Your task to perform on an android device: Open Google Image 0: 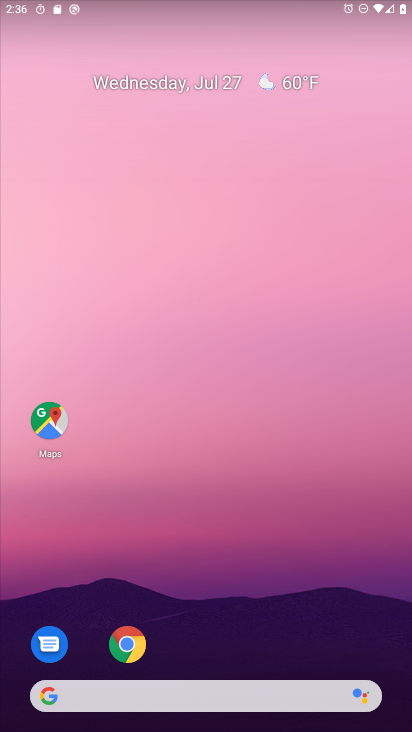
Step 0: drag from (216, 555) to (265, 51)
Your task to perform on an android device: Open Google Image 1: 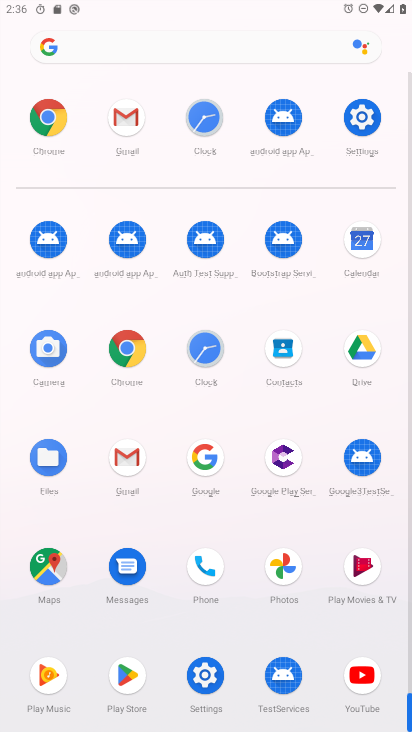
Step 1: click (196, 446)
Your task to perform on an android device: Open Google Image 2: 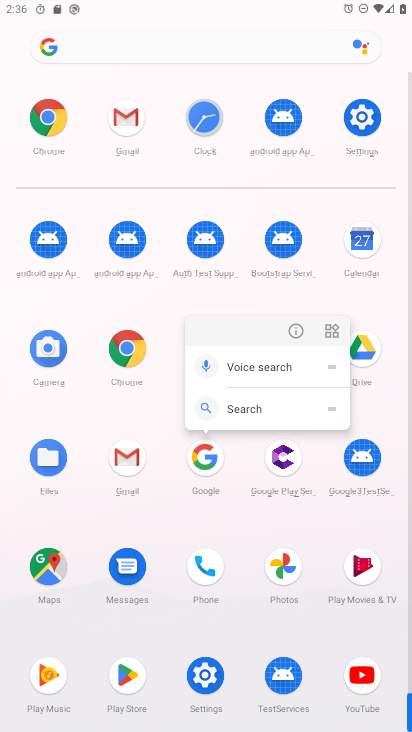
Step 2: click (292, 321)
Your task to perform on an android device: Open Google Image 3: 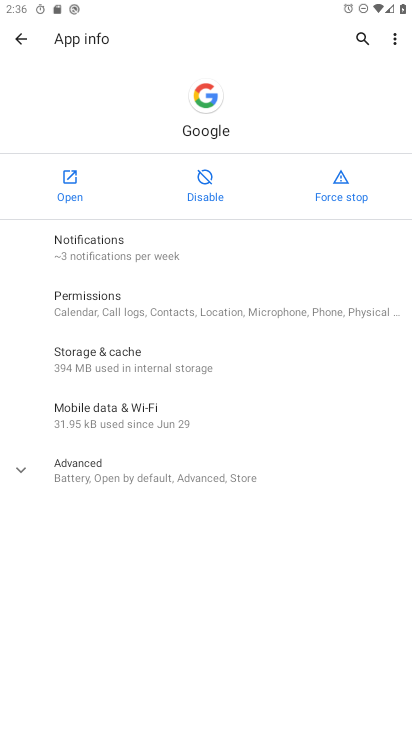
Step 3: click (66, 181)
Your task to perform on an android device: Open Google Image 4: 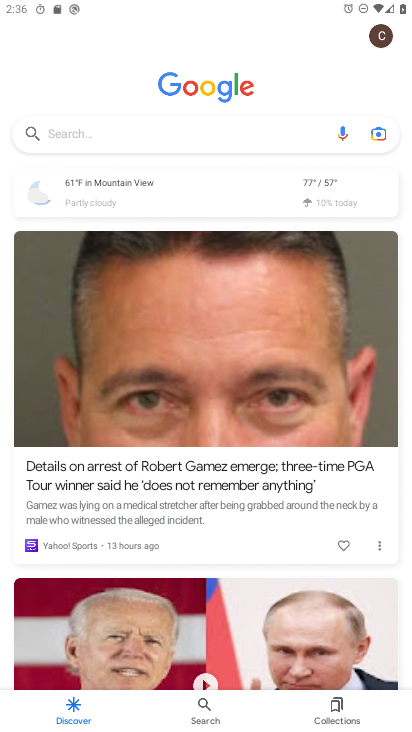
Step 4: task complete